Your task to perform on an android device: Open maps Image 0: 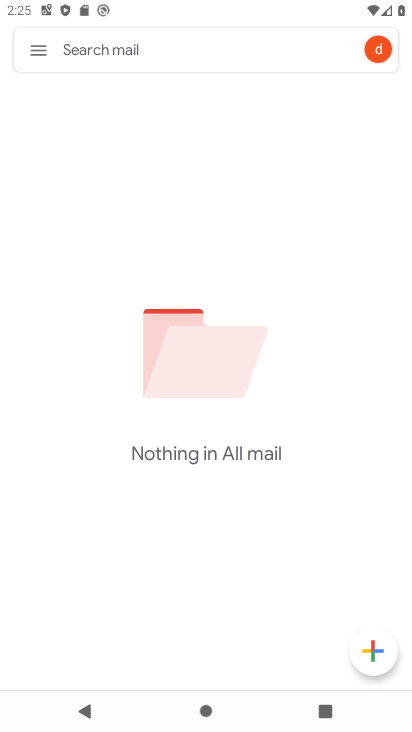
Step 0: press back button
Your task to perform on an android device: Open maps Image 1: 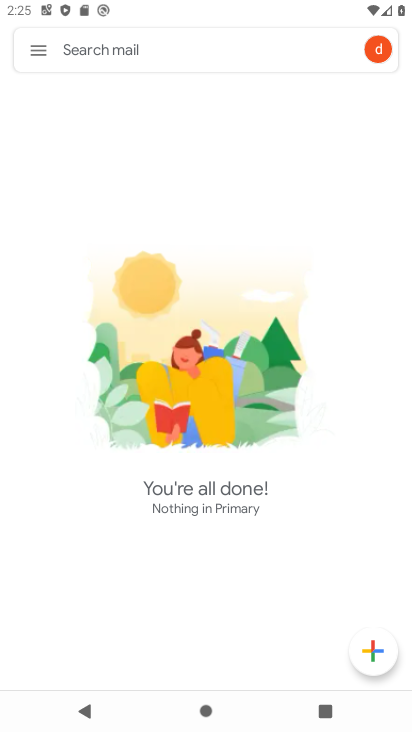
Step 1: click (34, 40)
Your task to perform on an android device: Open maps Image 2: 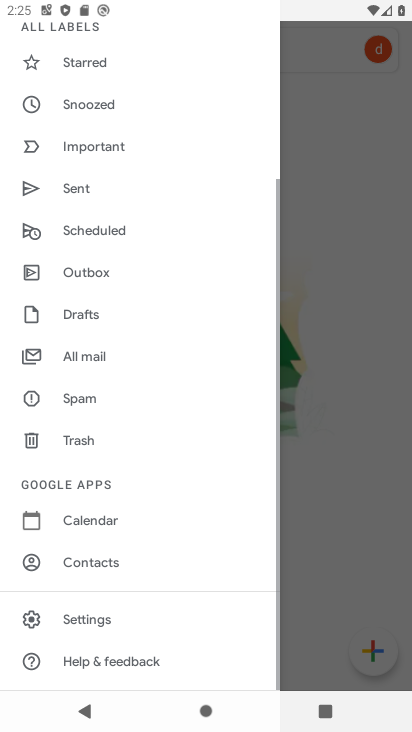
Step 2: drag from (196, 496) to (184, 155)
Your task to perform on an android device: Open maps Image 3: 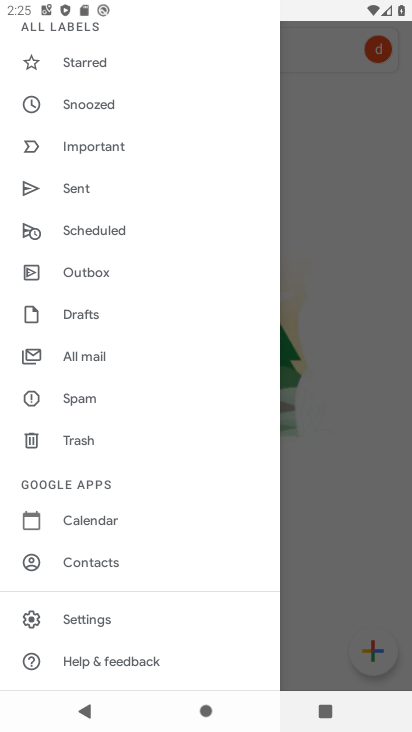
Step 3: drag from (161, 519) to (162, 106)
Your task to perform on an android device: Open maps Image 4: 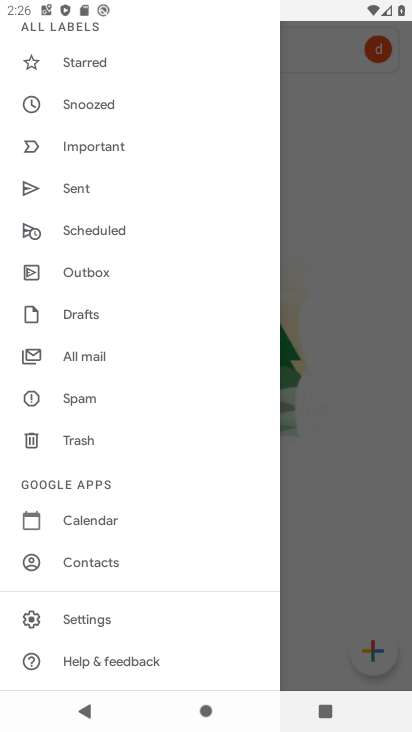
Step 4: drag from (142, 518) to (173, 118)
Your task to perform on an android device: Open maps Image 5: 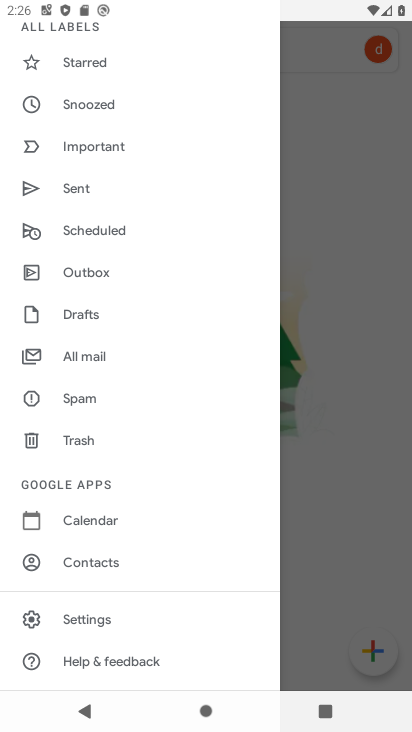
Step 5: press back button
Your task to perform on an android device: Open maps Image 6: 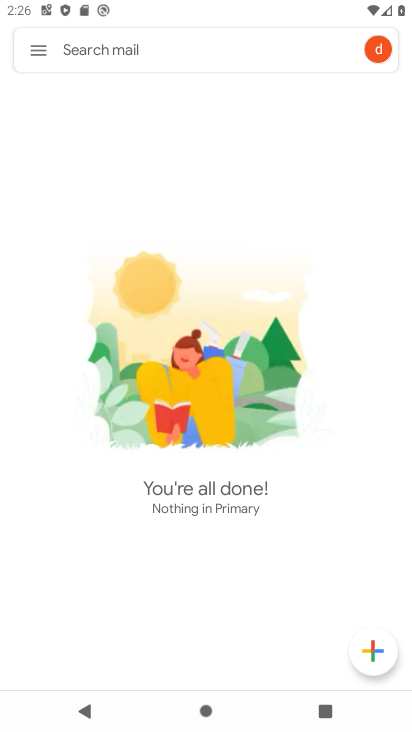
Step 6: press back button
Your task to perform on an android device: Open maps Image 7: 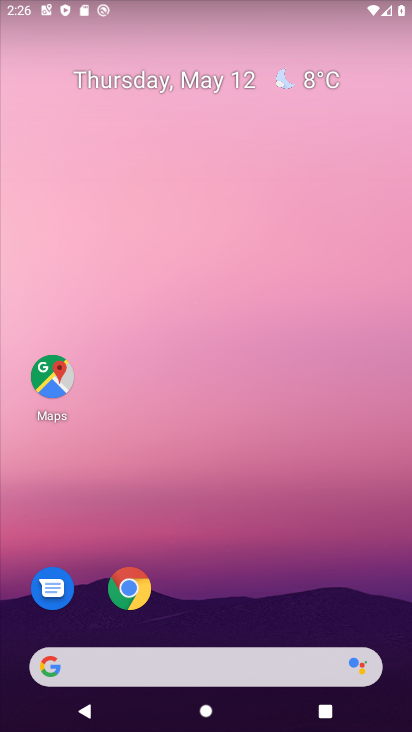
Step 7: click (47, 371)
Your task to perform on an android device: Open maps Image 8: 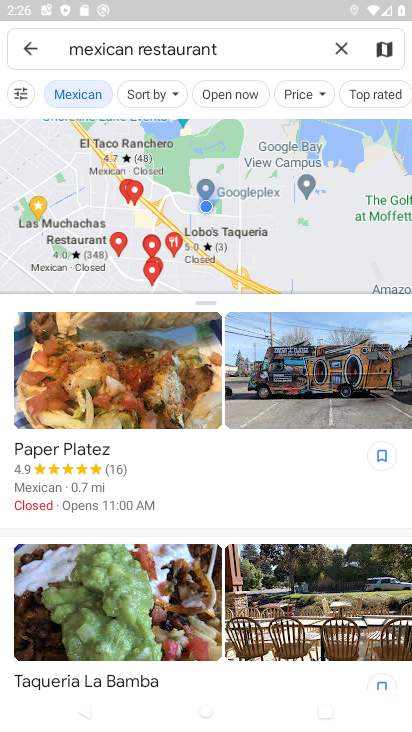
Step 8: click (32, 44)
Your task to perform on an android device: Open maps Image 9: 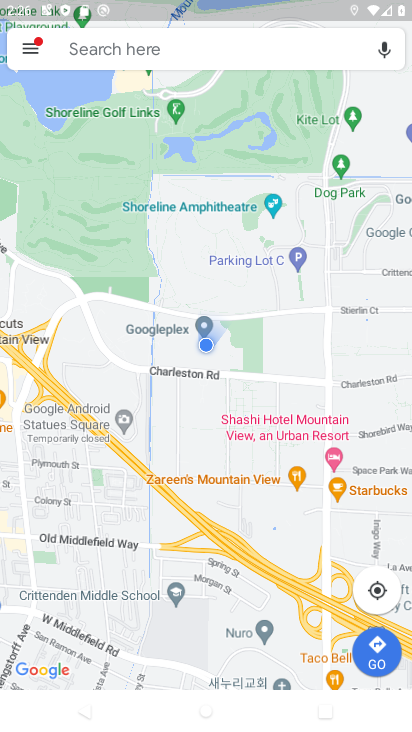
Step 9: task complete